Your task to perform on an android device: install app "Messages" Image 0: 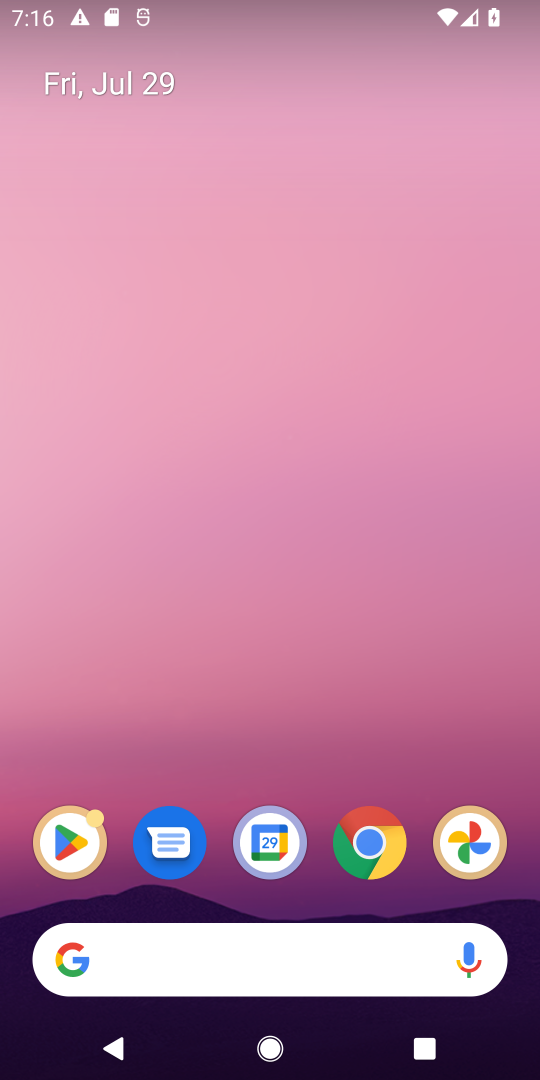
Step 0: drag from (410, 979) to (321, 48)
Your task to perform on an android device: install app "Messages" Image 1: 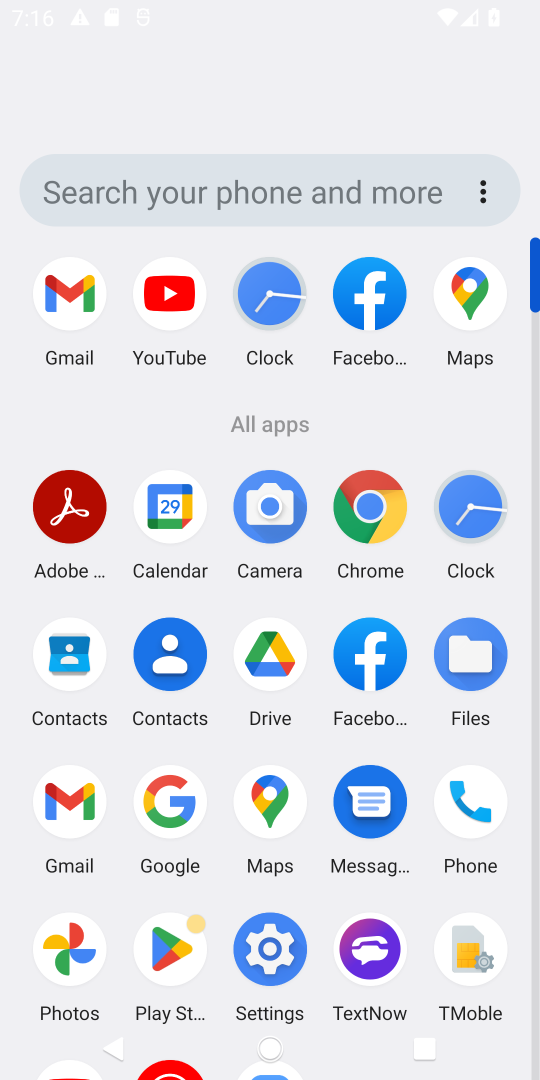
Step 1: drag from (381, 891) to (347, 303)
Your task to perform on an android device: install app "Messages" Image 2: 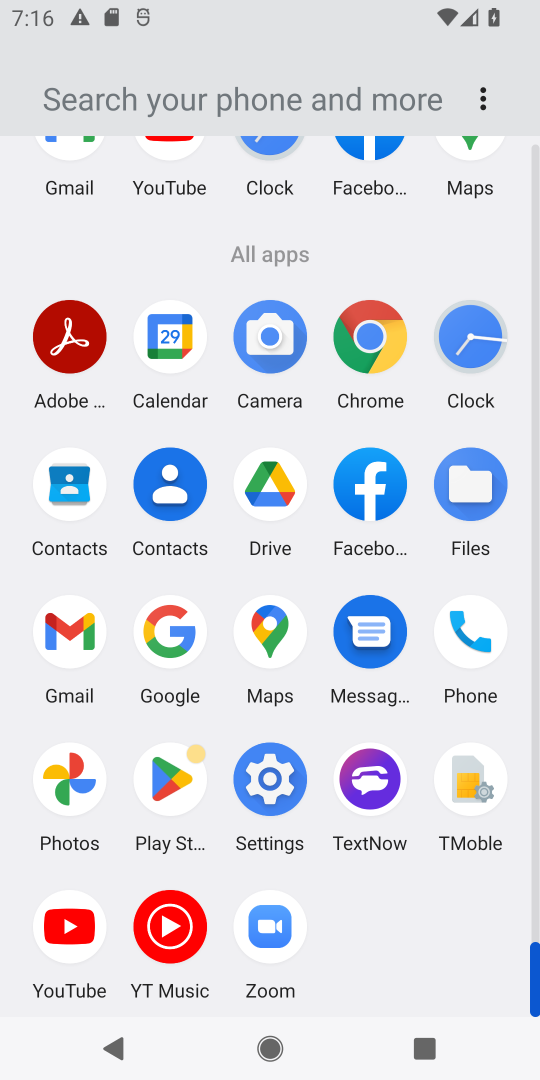
Step 2: drag from (305, 379) to (316, 621)
Your task to perform on an android device: install app "Messages" Image 3: 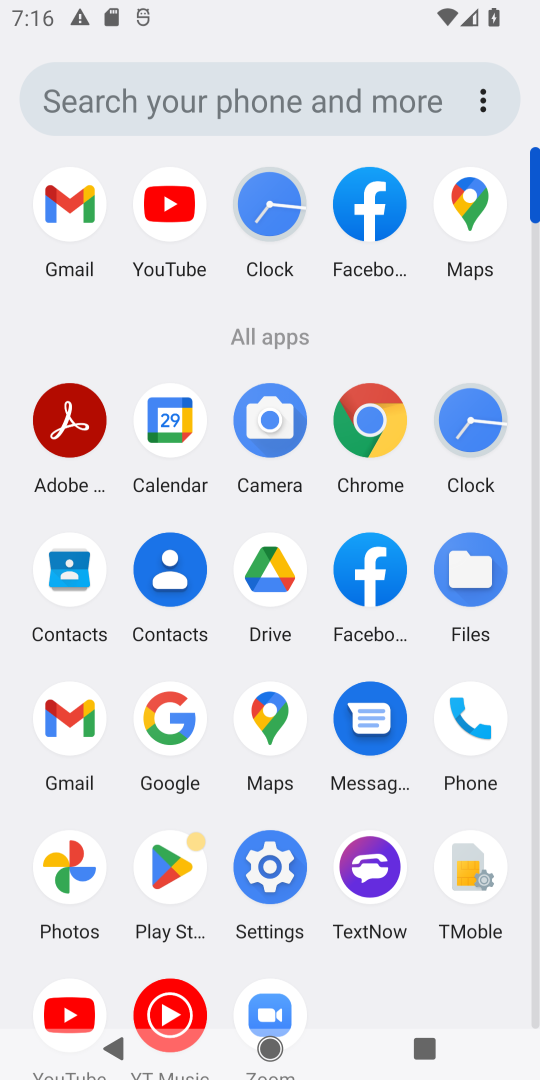
Step 3: drag from (316, 440) to (320, 711)
Your task to perform on an android device: install app "Messages" Image 4: 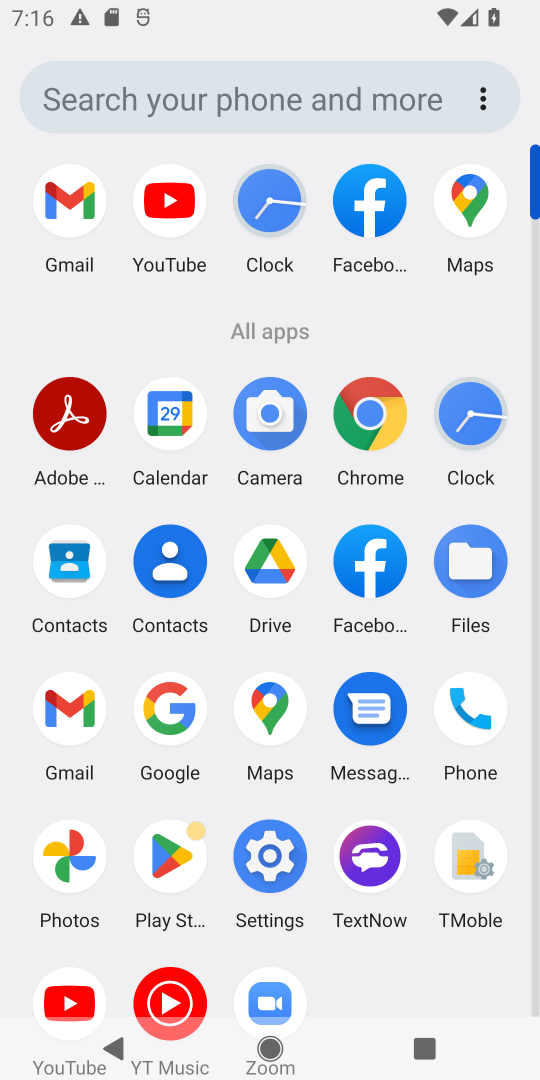
Step 4: click (163, 861)
Your task to perform on an android device: install app "Messages" Image 5: 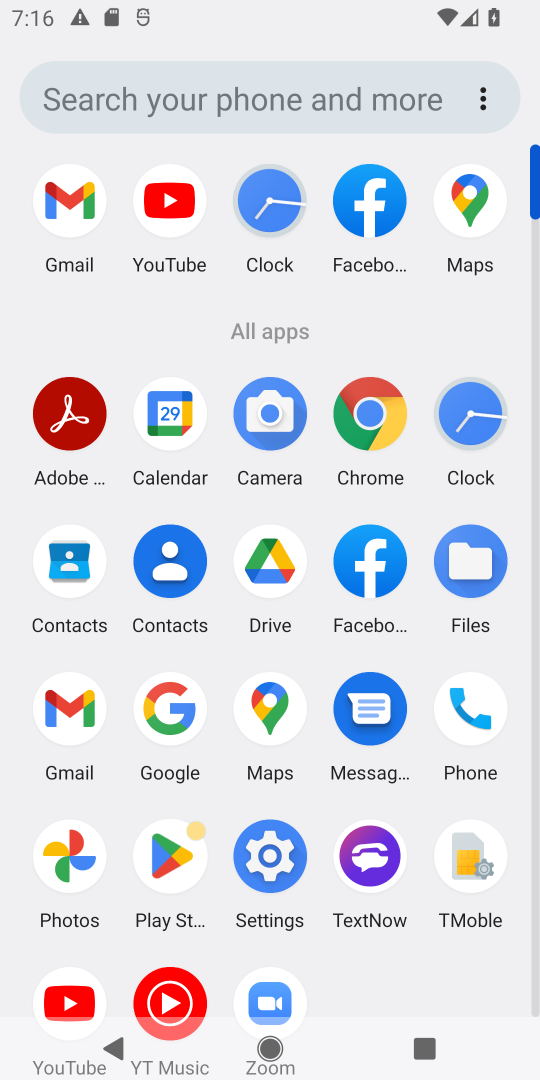
Step 5: click (161, 860)
Your task to perform on an android device: install app "Messages" Image 6: 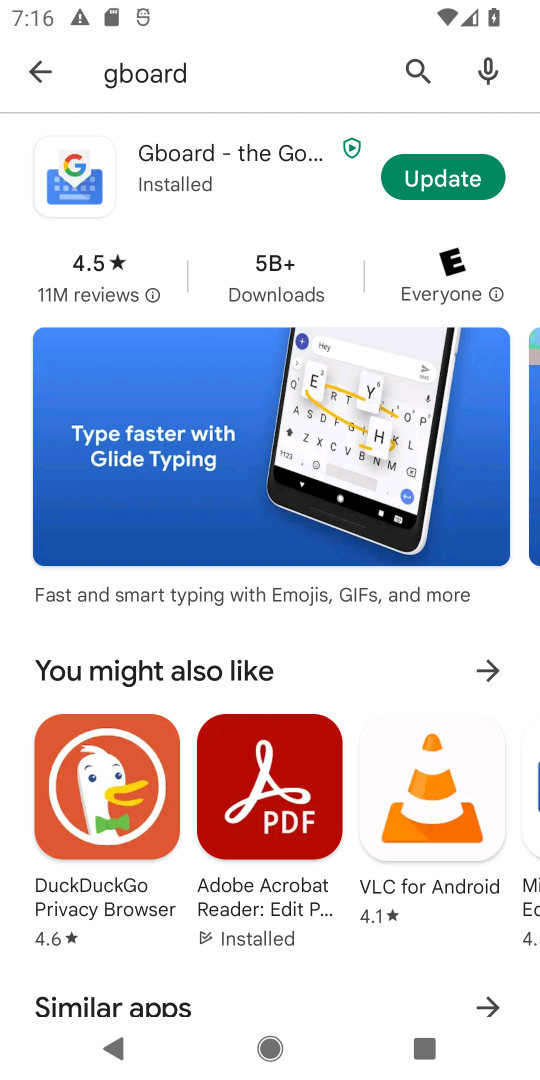
Step 6: click (175, 871)
Your task to perform on an android device: install app "Messages" Image 7: 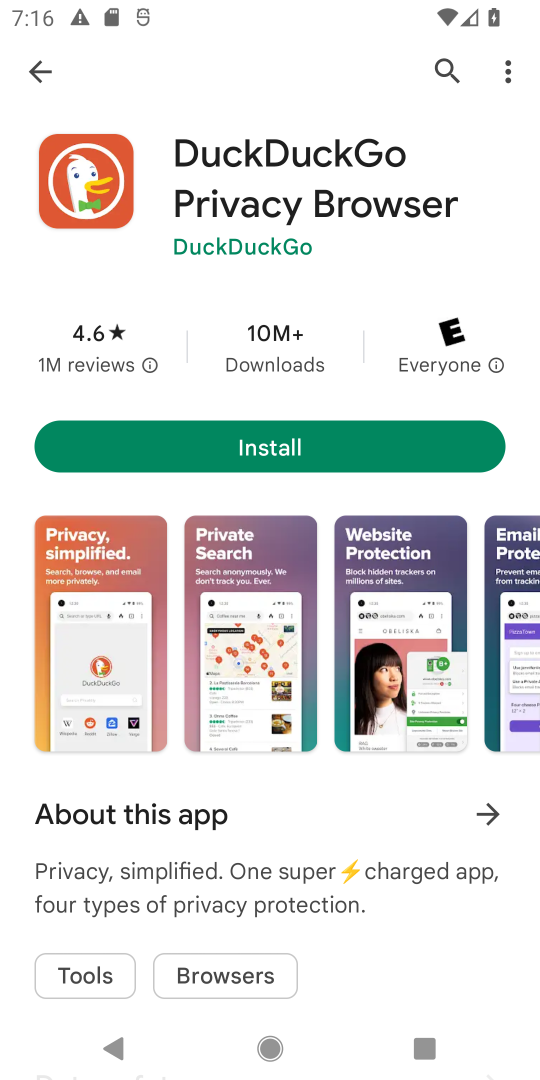
Step 7: click (22, 68)
Your task to perform on an android device: install app "Messages" Image 8: 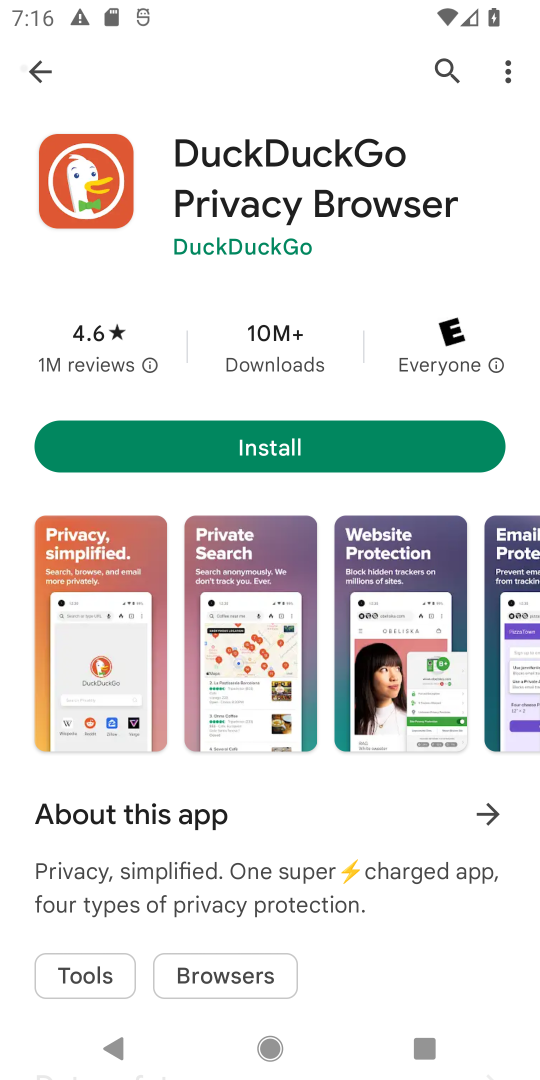
Step 8: click (25, 67)
Your task to perform on an android device: install app "Messages" Image 9: 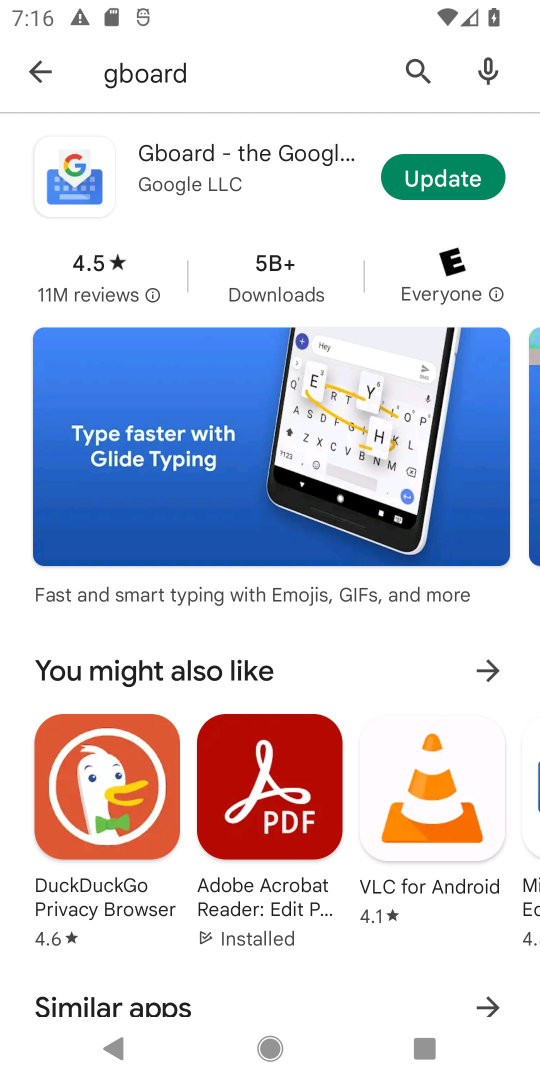
Step 9: click (34, 62)
Your task to perform on an android device: install app "Messages" Image 10: 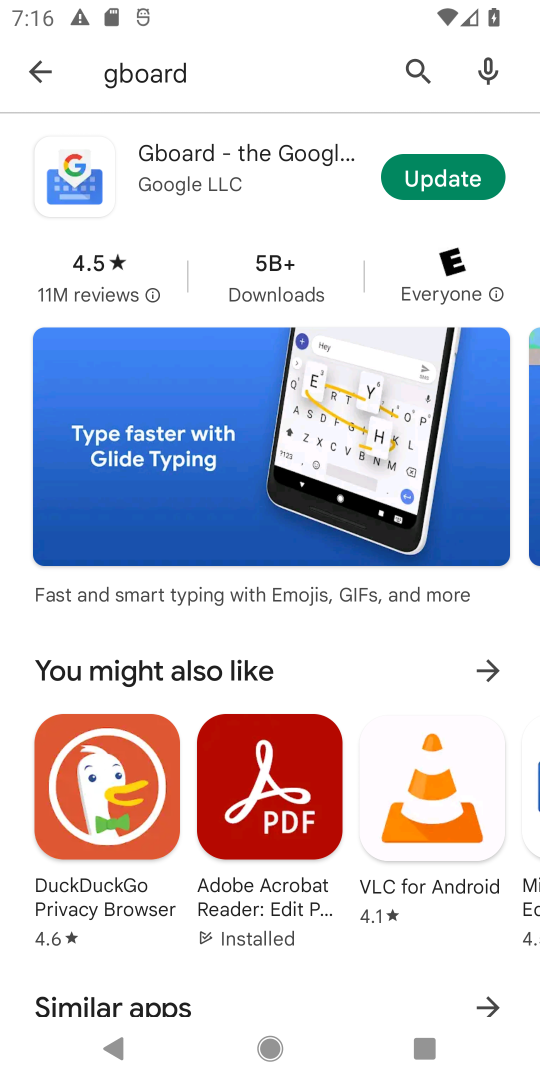
Step 10: click (33, 64)
Your task to perform on an android device: install app "Messages" Image 11: 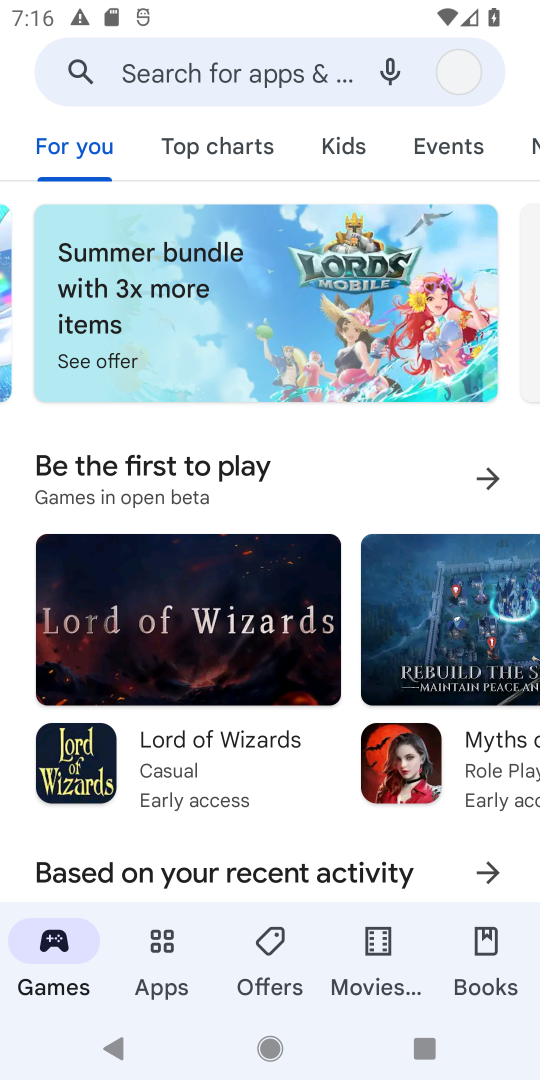
Step 11: click (35, 67)
Your task to perform on an android device: install app "Messages" Image 12: 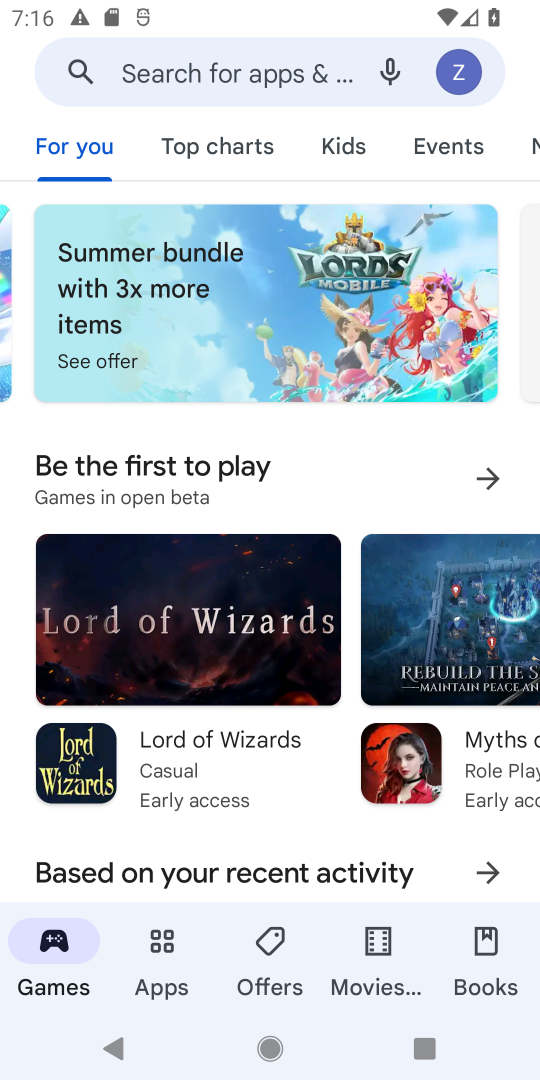
Step 12: click (124, 71)
Your task to perform on an android device: install app "Messages" Image 13: 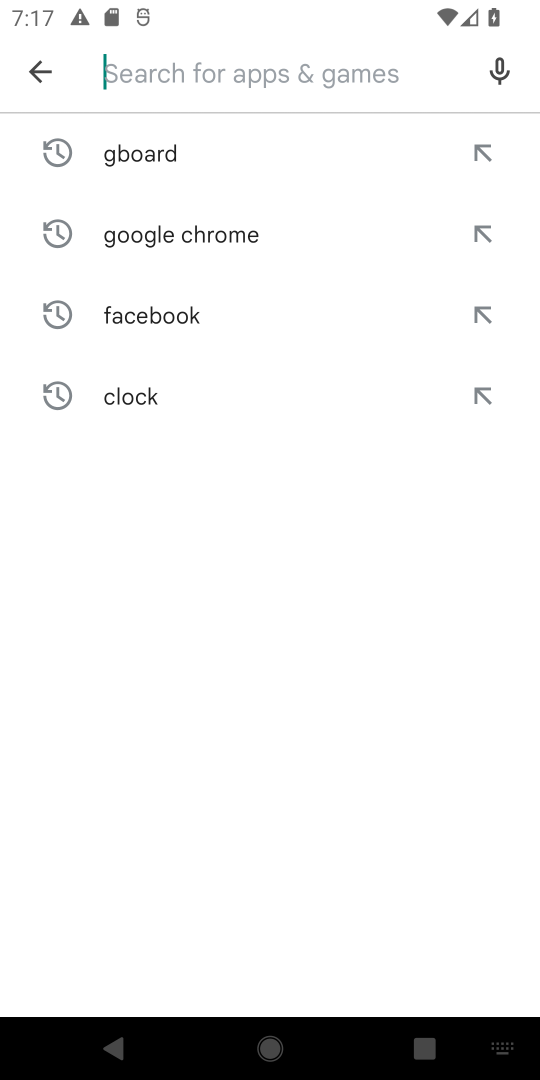
Step 13: type "Messages"
Your task to perform on an android device: install app "Messages" Image 14: 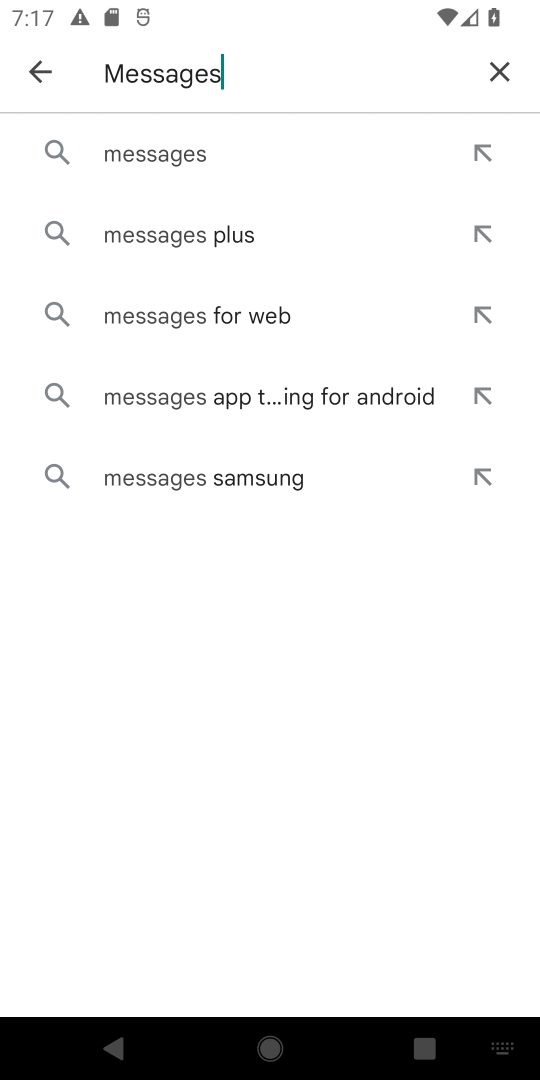
Step 14: click (130, 168)
Your task to perform on an android device: install app "Messages" Image 15: 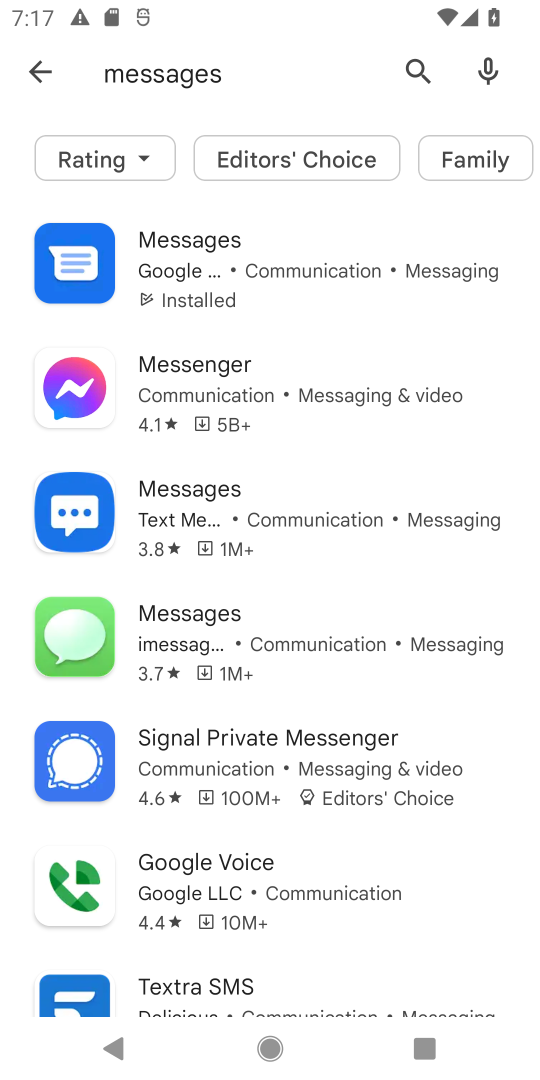
Step 15: task complete